Your task to perform on an android device: Open maps Image 0: 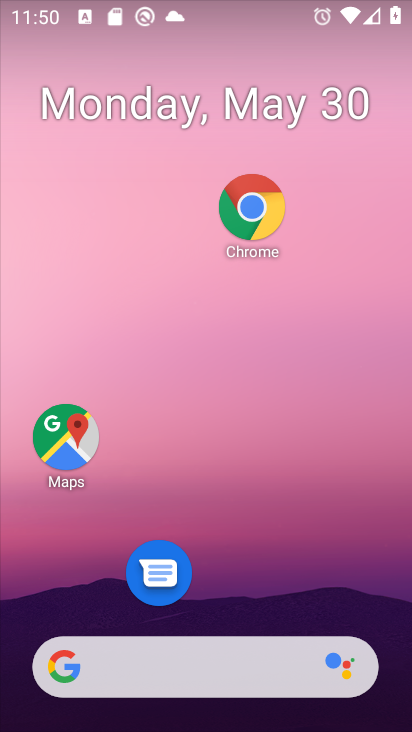
Step 0: drag from (271, 645) to (256, 170)
Your task to perform on an android device: Open maps Image 1: 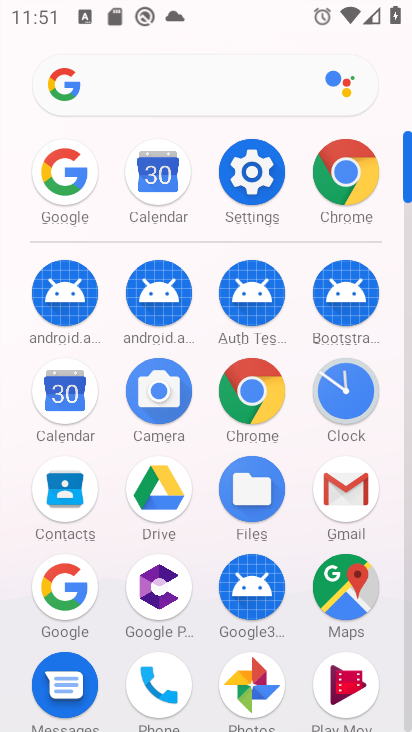
Step 1: click (358, 598)
Your task to perform on an android device: Open maps Image 2: 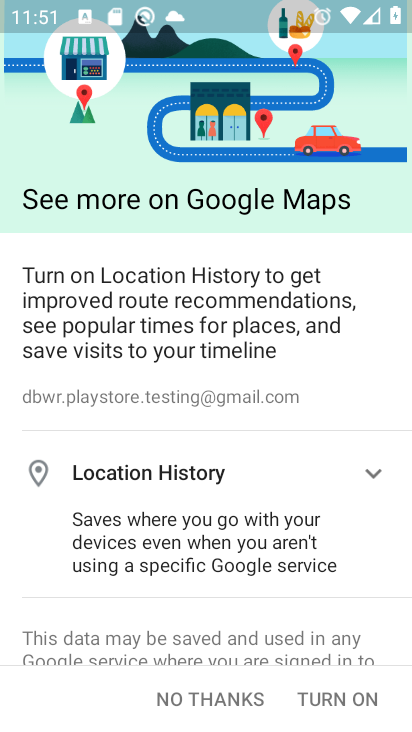
Step 2: click (362, 704)
Your task to perform on an android device: Open maps Image 3: 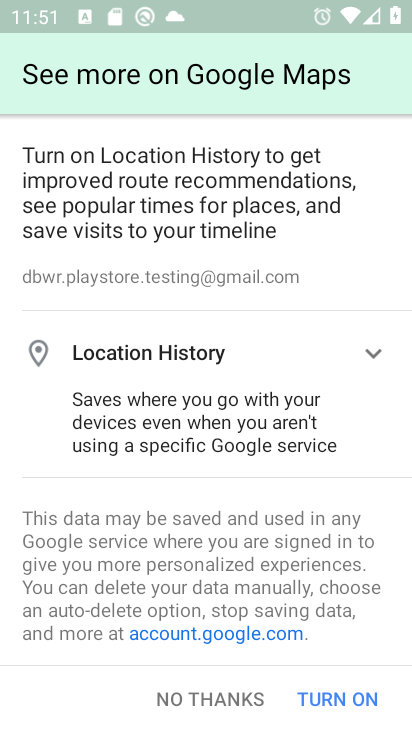
Step 3: click (362, 704)
Your task to perform on an android device: Open maps Image 4: 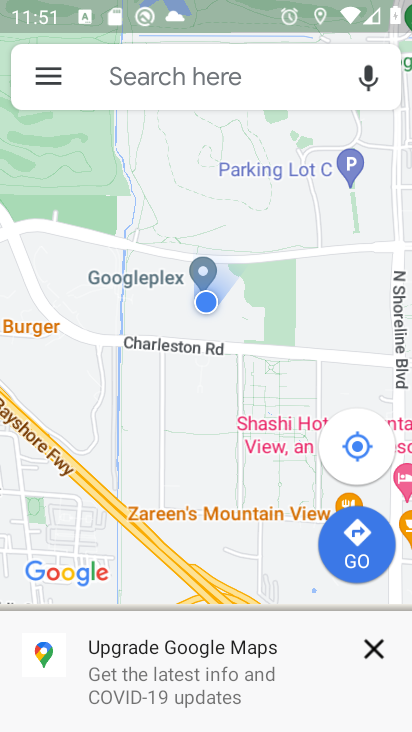
Step 4: task complete